Your task to perform on an android device: remove spam from my inbox in the gmail app Image 0: 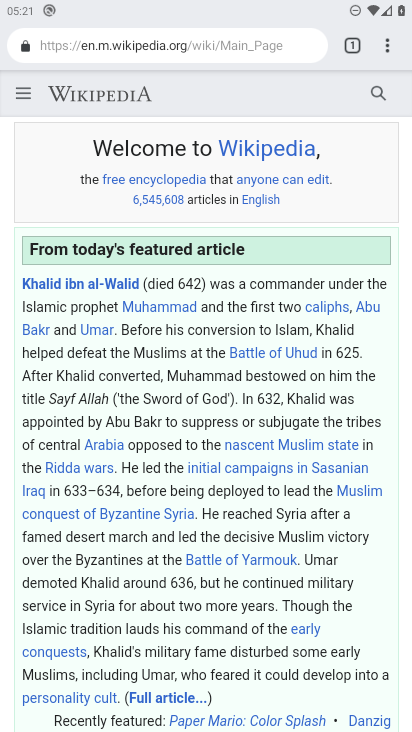
Step 0: press home button
Your task to perform on an android device: remove spam from my inbox in the gmail app Image 1: 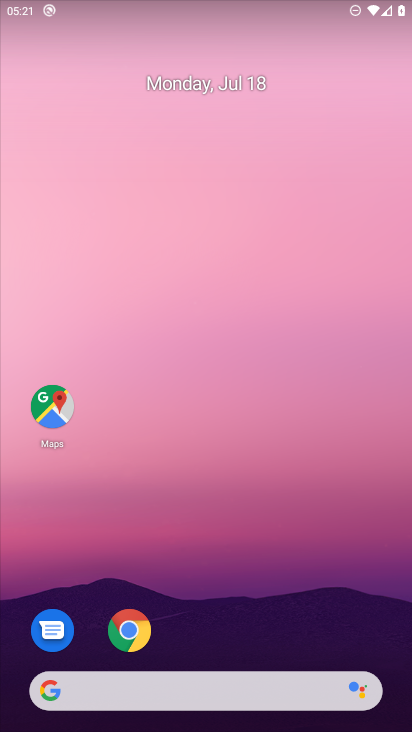
Step 1: drag from (235, 636) to (307, 304)
Your task to perform on an android device: remove spam from my inbox in the gmail app Image 2: 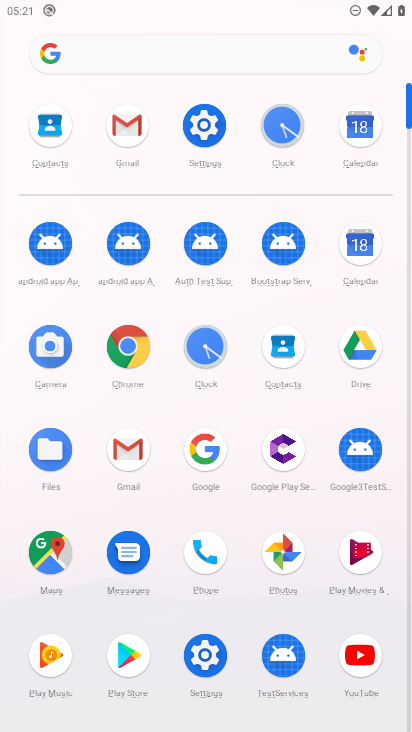
Step 2: click (125, 438)
Your task to perform on an android device: remove spam from my inbox in the gmail app Image 3: 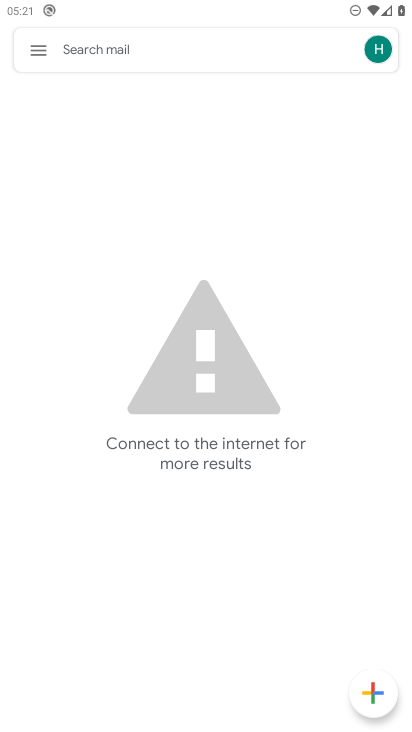
Step 3: click (35, 49)
Your task to perform on an android device: remove spam from my inbox in the gmail app Image 4: 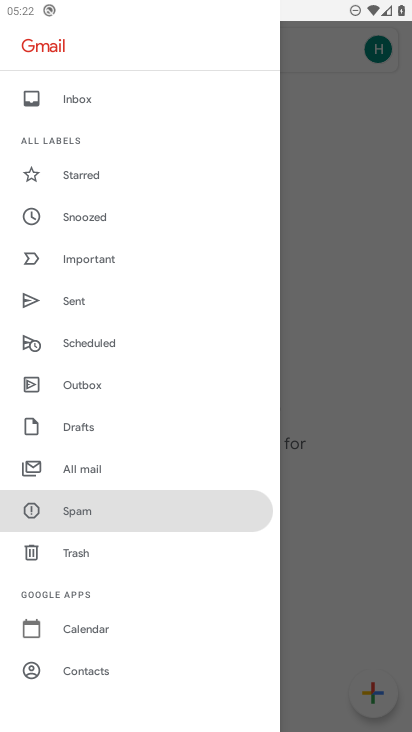
Step 4: task complete